Your task to perform on an android device: change the clock style Image 0: 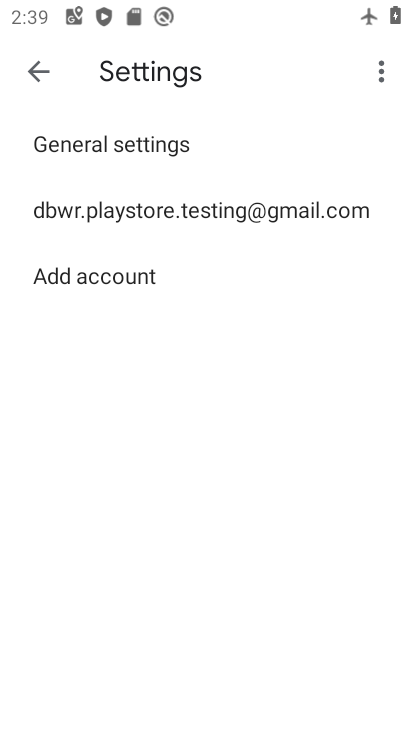
Step 0: press home button
Your task to perform on an android device: change the clock style Image 1: 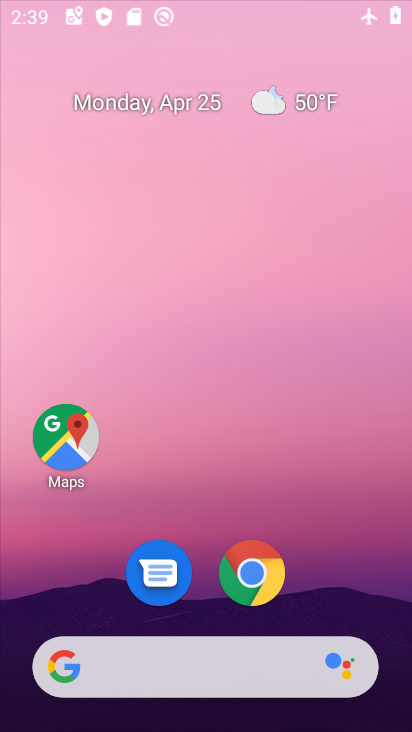
Step 1: drag from (334, 505) to (340, 37)
Your task to perform on an android device: change the clock style Image 2: 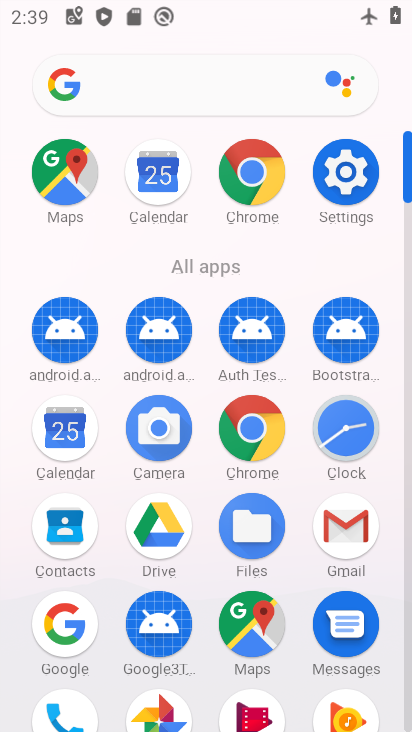
Step 2: click (337, 444)
Your task to perform on an android device: change the clock style Image 3: 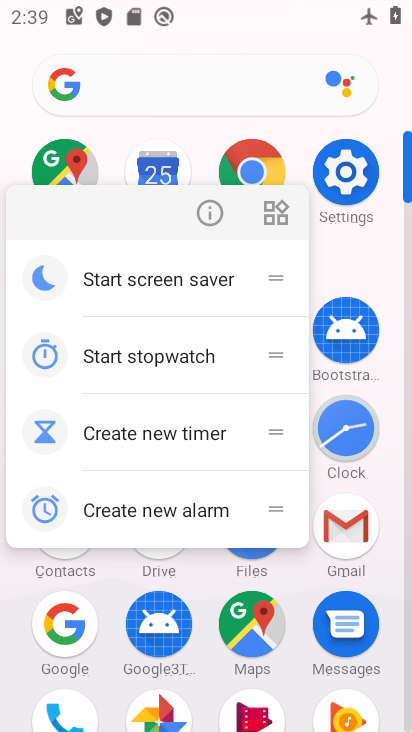
Step 3: click (337, 444)
Your task to perform on an android device: change the clock style Image 4: 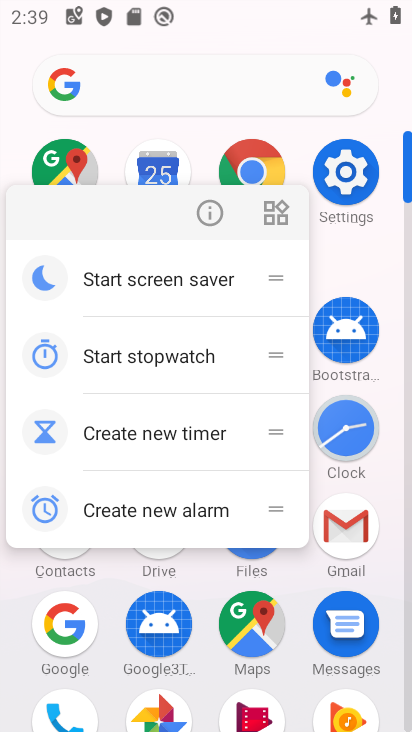
Step 4: click (337, 444)
Your task to perform on an android device: change the clock style Image 5: 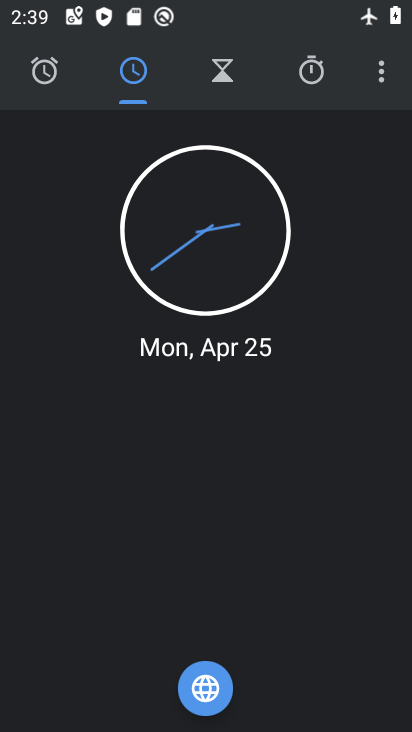
Step 5: click (374, 78)
Your task to perform on an android device: change the clock style Image 6: 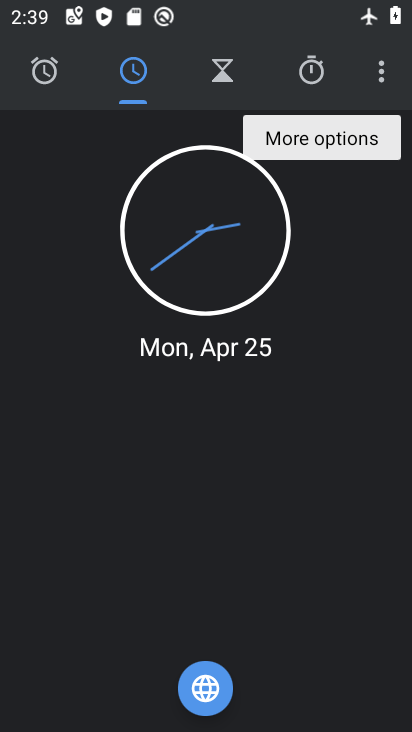
Step 6: click (374, 77)
Your task to perform on an android device: change the clock style Image 7: 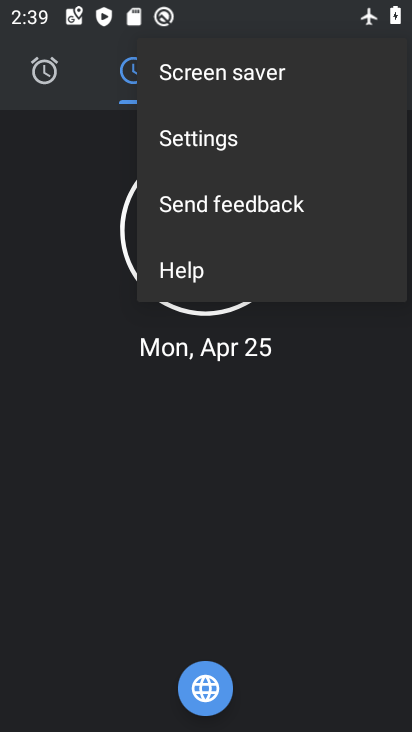
Step 7: click (181, 150)
Your task to perform on an android device: change the clock style Image 8: 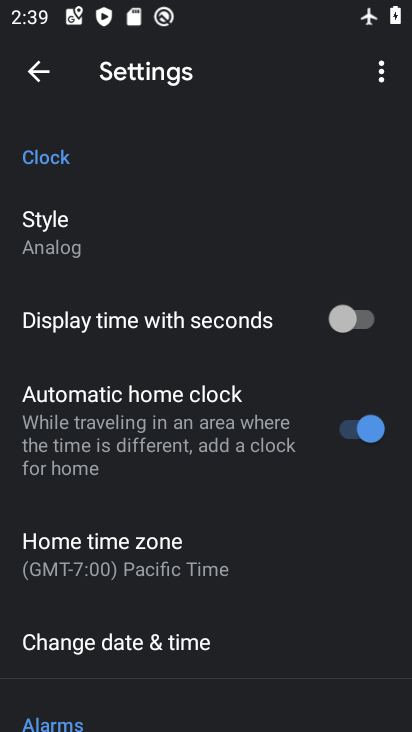
Step 8: drag from (208, 599) to (232, 175)
Your task to perform on an android device: change the clock style Image 9: 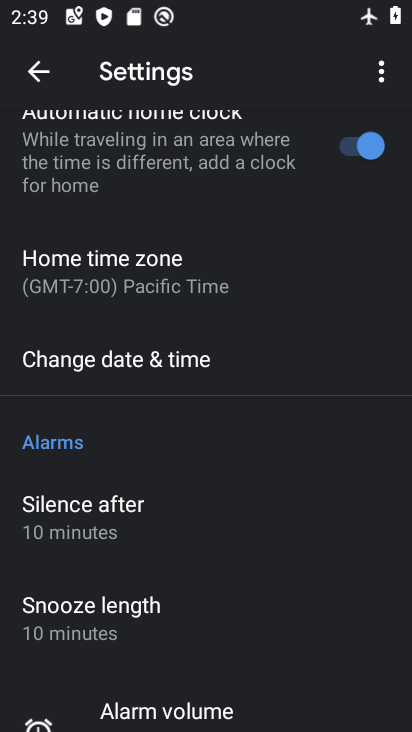
Step 9: drag from (247, 265) to (248, 591)
Your task to perform on an android device: change the clock style Image 10: 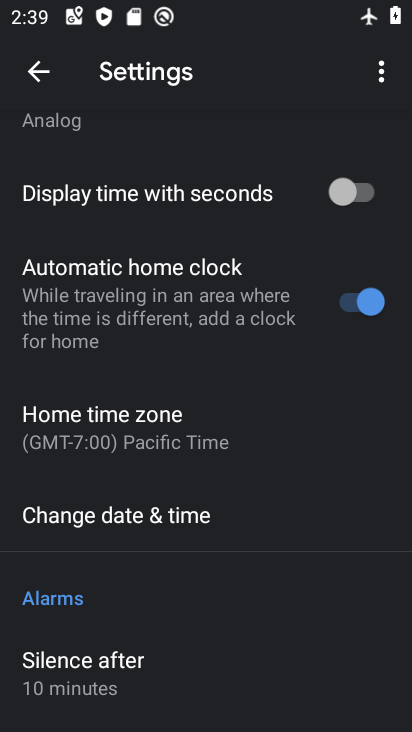
Step 10: drag from (204, 245) to (175, 637)
Your task to perform on an android device: change the clock style Image 11: 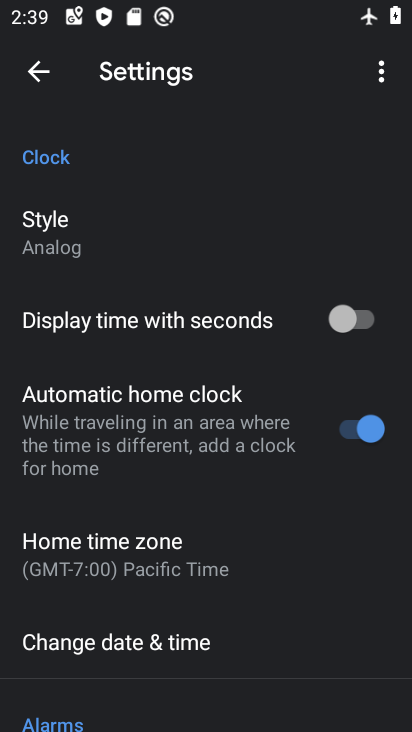
Step 11: click (108, 241)
Your task to perform on an android device: change the clock style Image 12: 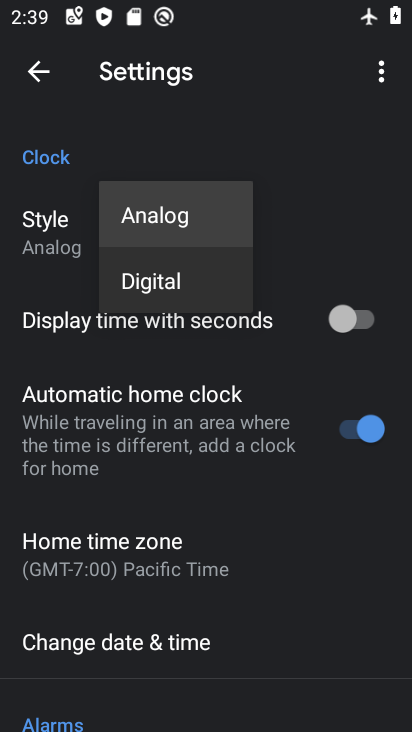
Step 12: click (169, 290)
Your task to perform on an android device: change the clock style Image 13: 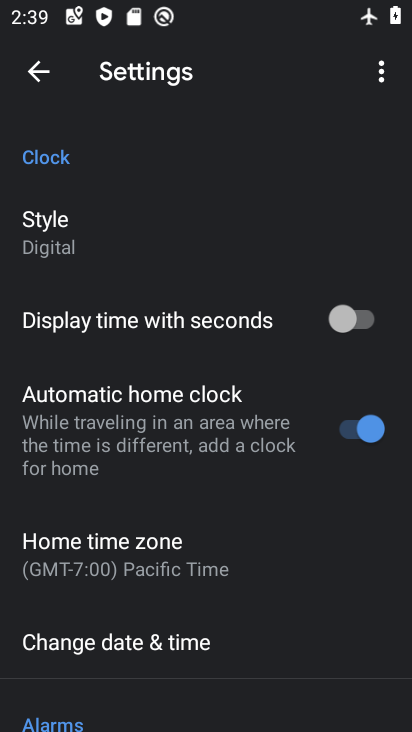
Step 13: task complete